Your task to perform on an android device: Go to sound settings Image 0: 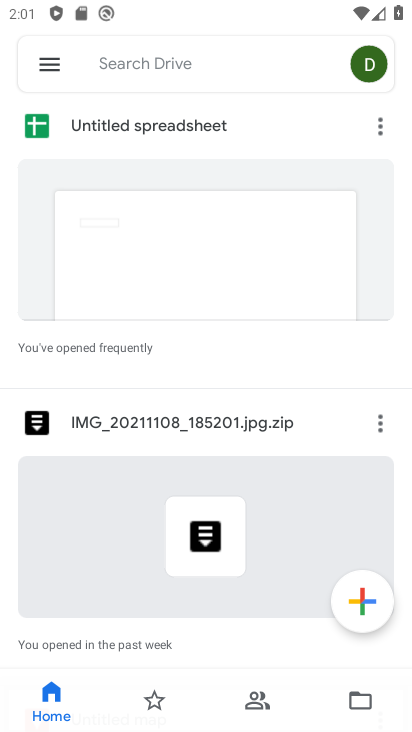
Step 0: press home button
Your task to perform on an android device: Go to sound settings Image 1: 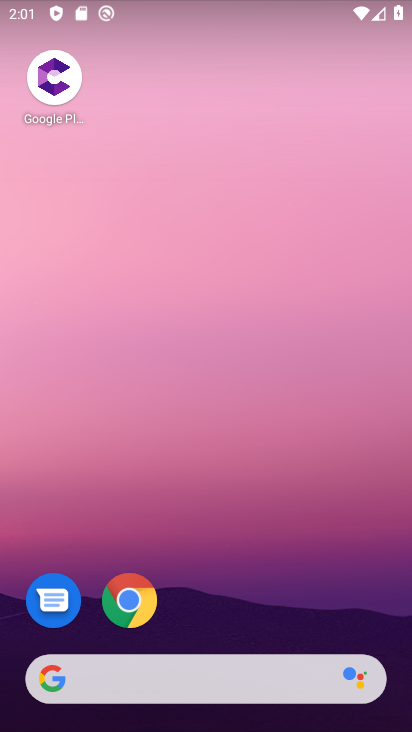
Step 1: drag from (21, 480) to (385, 511)
Your task to perform on an android device: Go to sound settings Image 2: 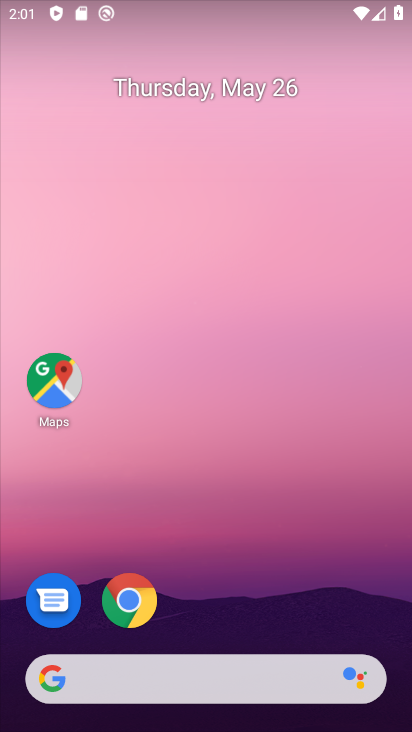
Step 2: drag from (243, 596) to (263, 273)
Your task to perform on an android device: Go to sound settings Image 3: 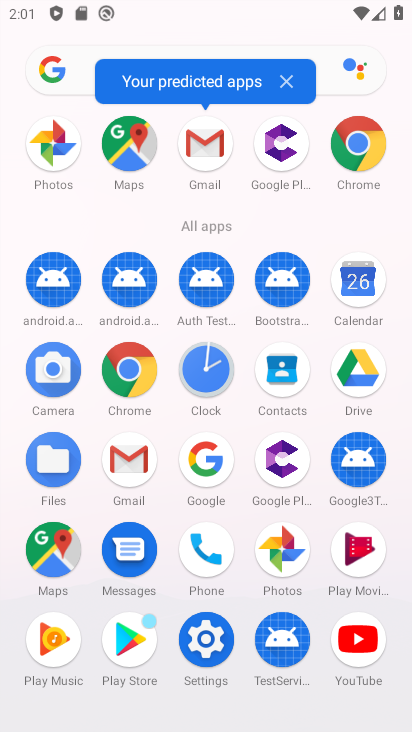
Step 3: click (202, 630)
Your task to perform on an android device: Go to sound settings Image 4: 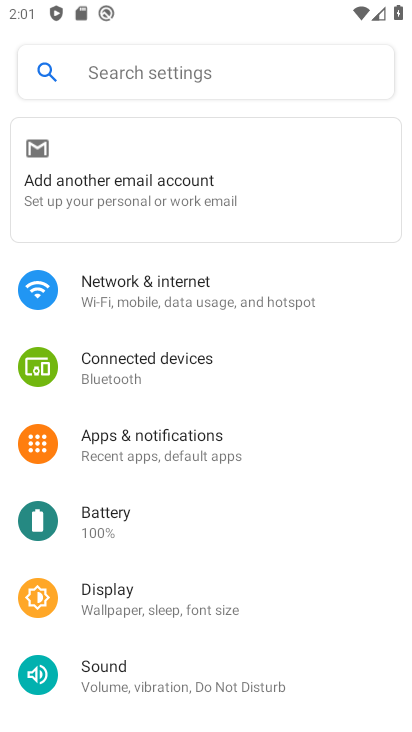
Step 4: click (163, 662)
Your task to perform on an android device: Go to sound settings Image 5: 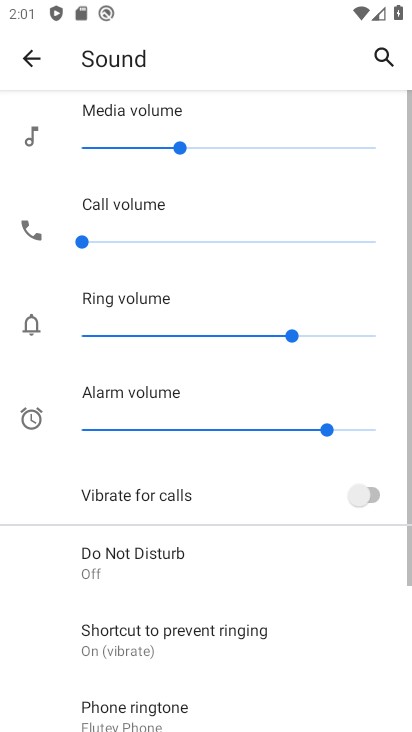
Step 5: task complete